Your task to perform on an android device: toggle show notifications on the lock screen Image 0: 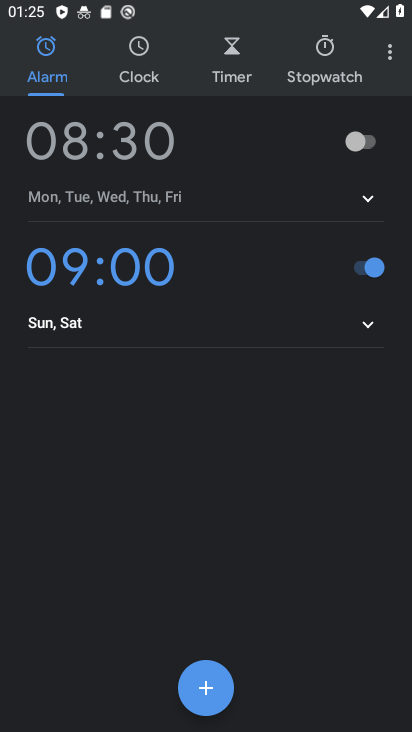
Step 0: press home button
Your task to perform on an android device: toggle show notifications on the lock screen Image 1: 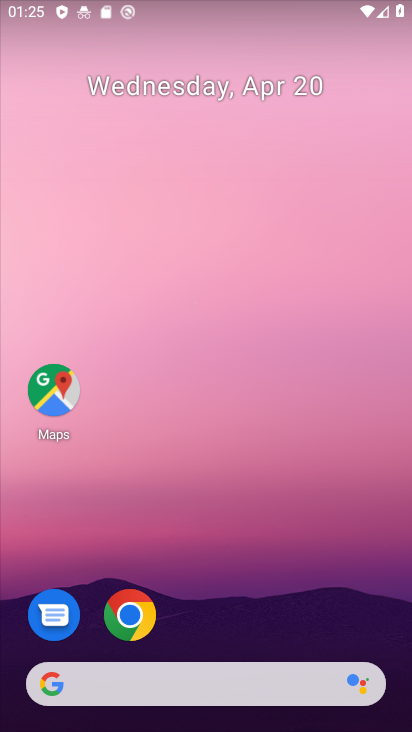
Step 1: drag from (361, 558) to (351, 164)
Your task to perform on an android device: toggle show notifications on the lock screen Image 2: 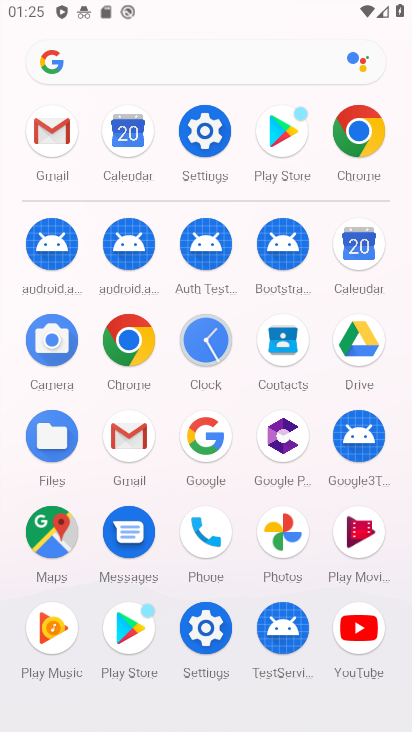
Step 2: click (193, 143)
Your task to perform on an android device: toggle show notifications on the lock screen Image 3: 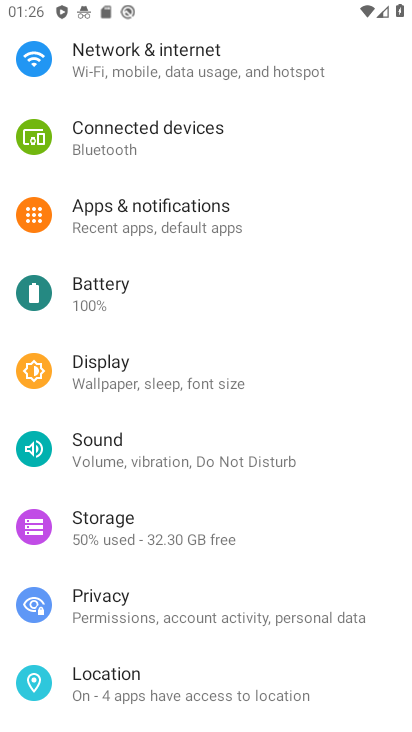
Step 3: drag from (364, 497) to (366, 166)
Your task to perform on an android device: toggle show notifications on the lock screen Image 4: 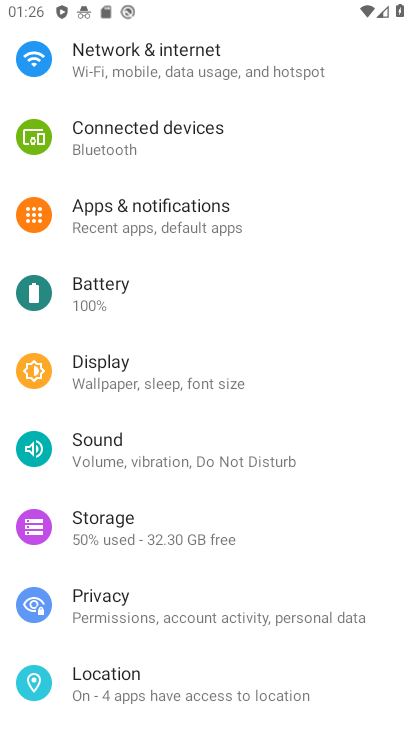
Step 4: drag from (357, 667) to (320, 122)
Your task to perform on an android device: toggle show notifications on the lock screen Image 5: 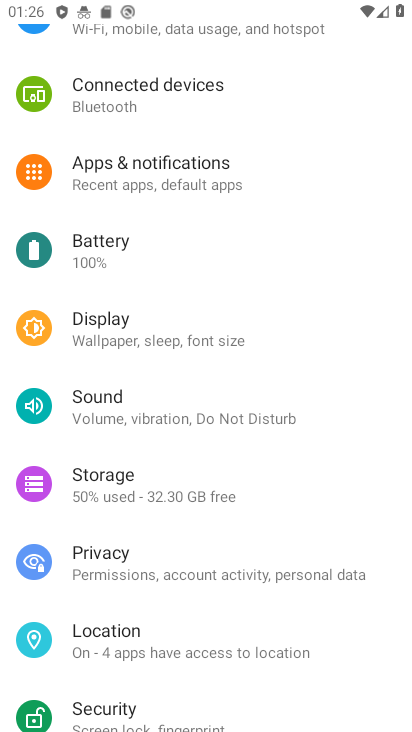
Step 5: click (115, 176)
Your task to perform on an android device: toggle show notifications on the lock screen Image 6: 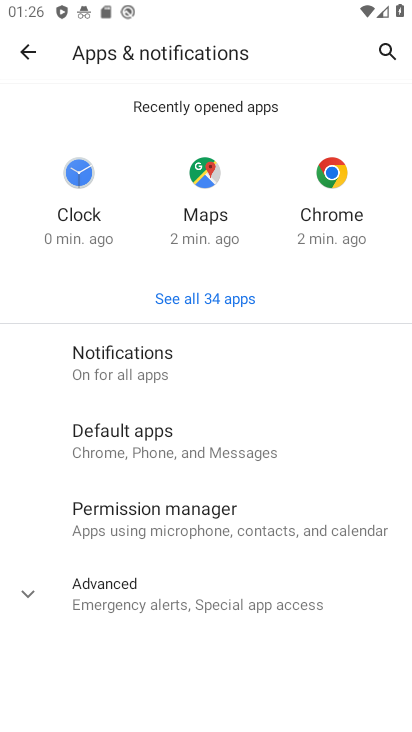
Step 6: click (109, 355)
Your task to perform on an android device: toggle show notifications on the lock screen Image 7: 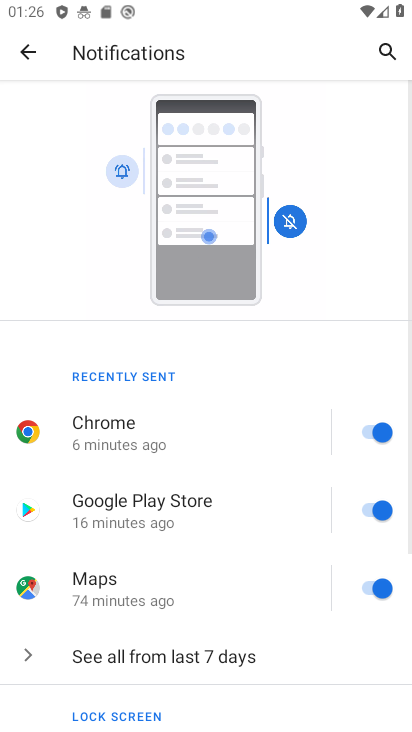
Step 7: drag from (257, 631) to (247, 348)
Your task to perform on an android device: toggle show notifications on the lock screen Image 8: 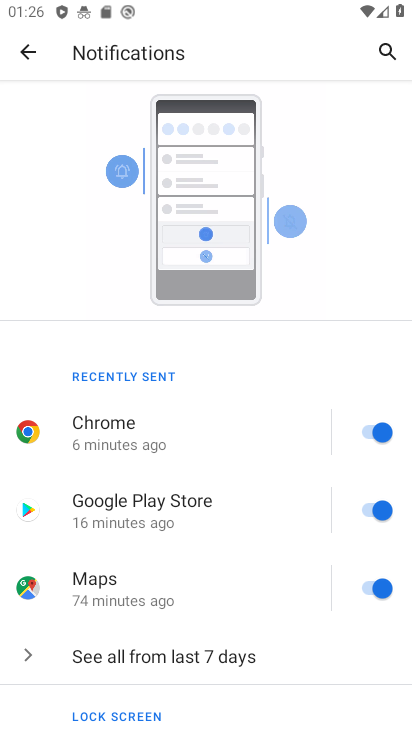
Step 8: drag from (302, 617) to (299, 208)
Your task to perform on an android device: toggle show notifications on the lock screen Image 9: 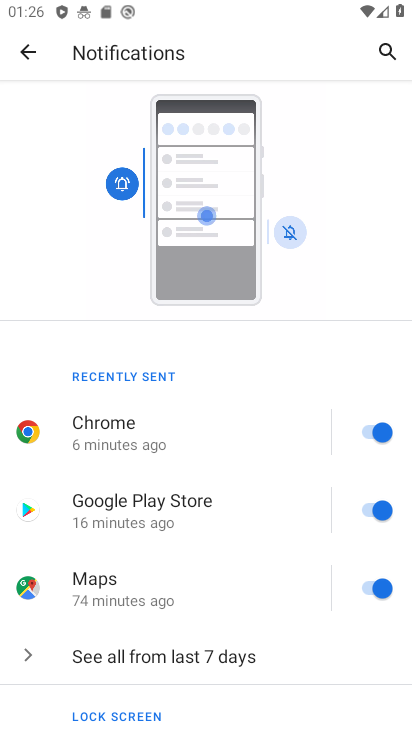
Step 9: drag from (322, 410) to (321, 149)
Your task to perform on an android device: toggle show notifications on the lock screen Image 10: 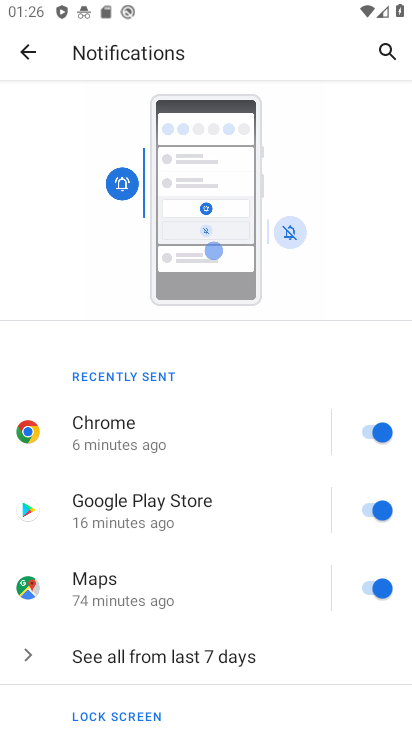
Step 10: drag from (303, 678) to (268, 298)
Your task to perform on an android device: toggle show notifications on the lock screen Image 11: 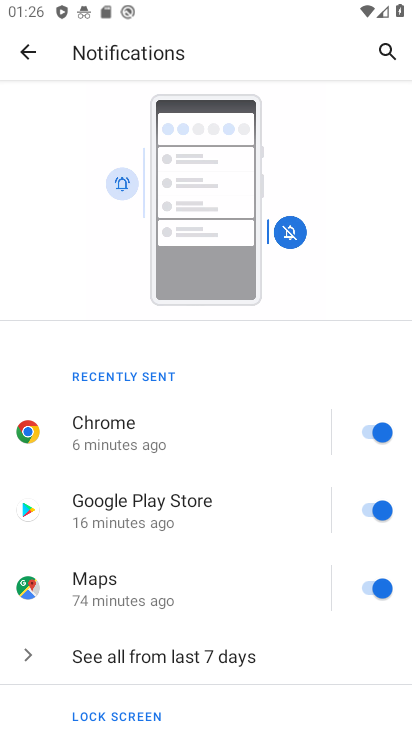
Step 11: drag from (318, 691) to (383, 305)
Your task to perform on an android device: toggle show notifications on the lock screen Image 12: 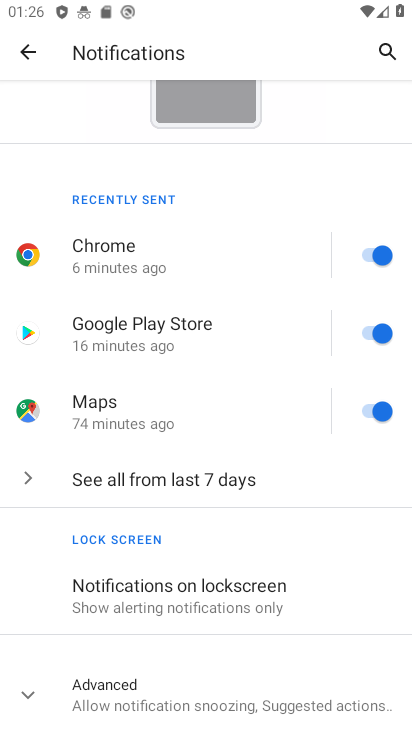
Step 12: click (118, 582)
Your task to perform on an android device: toggle show notifications on the lock screen Image 13: 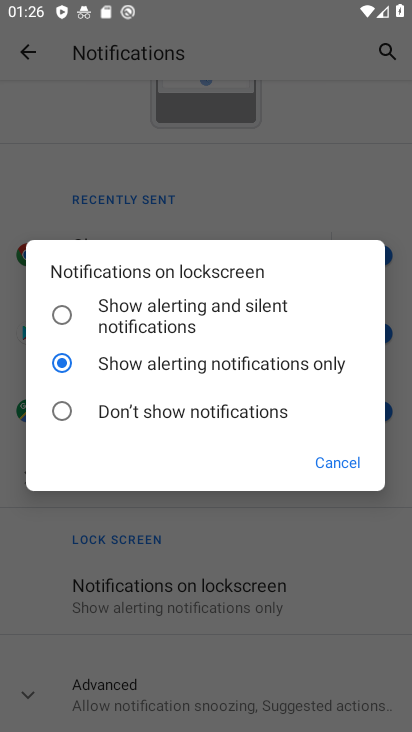
Step 13: click (60, 305)
Your task to perform on an android device: toggle show notifications on the lock screen Image 14: 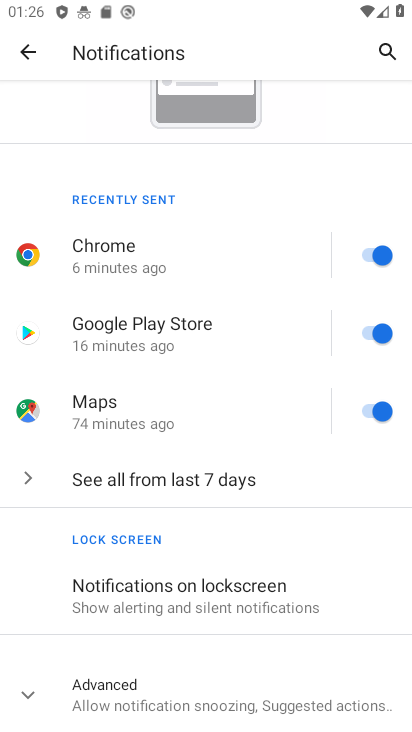
Step 14: task complete